Your task to perform on an android device: turn on javascript in the chrome app Image 0: 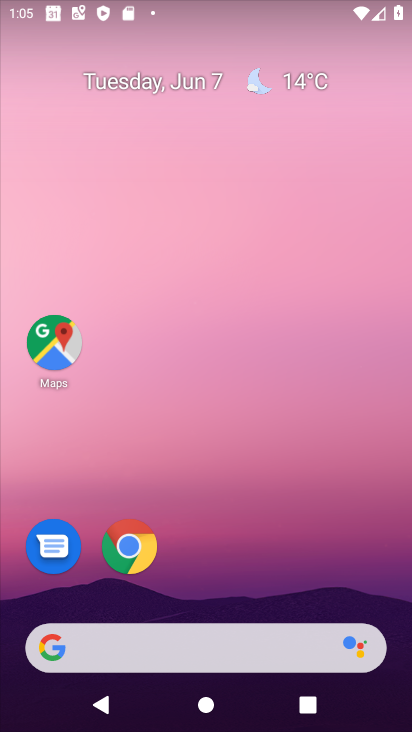
Step 0: drag from (234, 622) to (157, 104)
Your task to perform on an android device: turn on javascript in the chrome app Image 1: 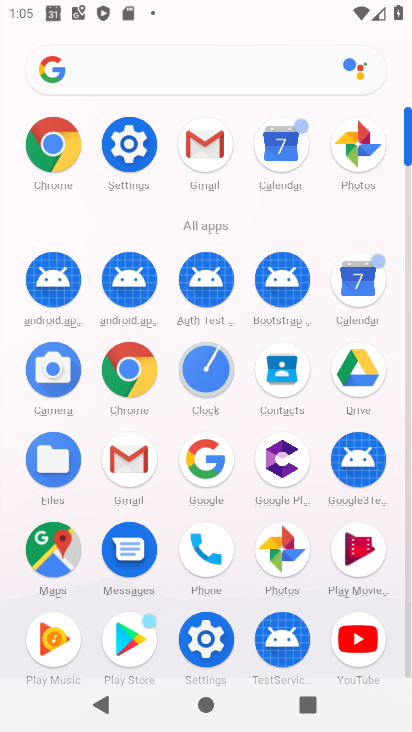
Step 1: click (137, 367)
Your task to perform on an android device: turn on javascript in the chrome app Image 2: 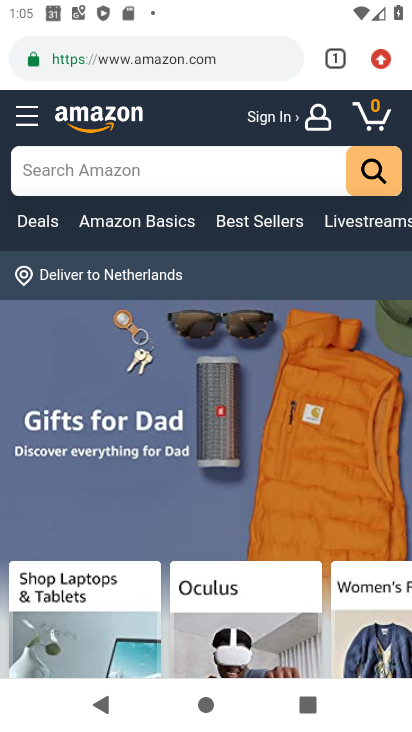
Step 2: click (378, 63)
Your task to perform on an android device: turn on javascript in the chrome app Image 3: 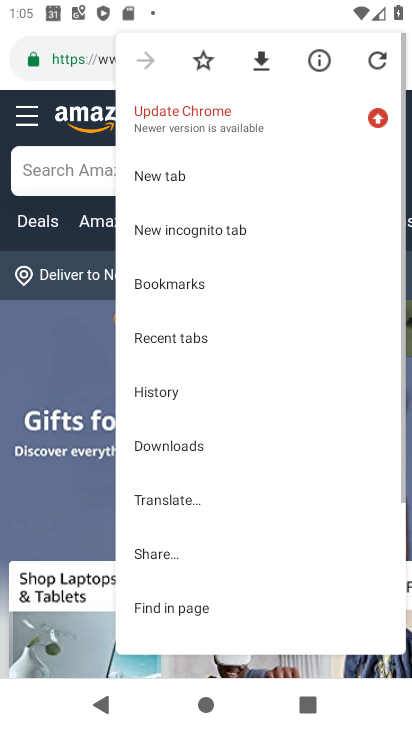
Step 3: drag from (153, 591) to (136, 139)
Your task to perform on an android device: turn on javascript in the chrome app Image 4: 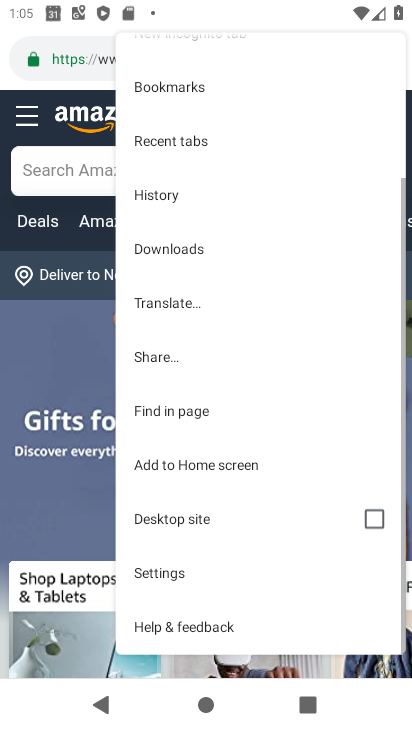
Step 4: click (156, 587)
Your task to perform on an android device: turn on javascript in the chrome app Image 5: 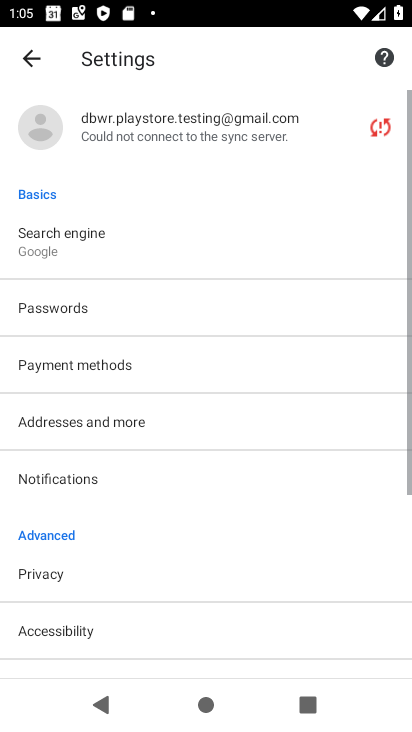
Step 5: drag from (187, 565) to (142, 115)
Your task to perform on an android device: turn on javascript in the chrome app Image 6: 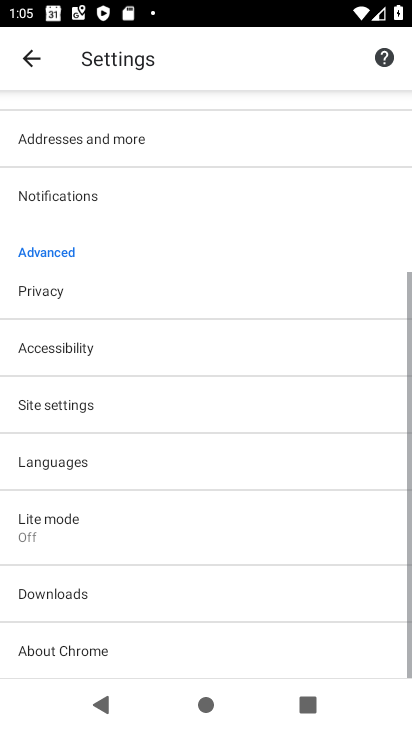
Step 6: click (43, 411)
Your task to perform on an android device: turn on javascript in the chrome app Image 7: 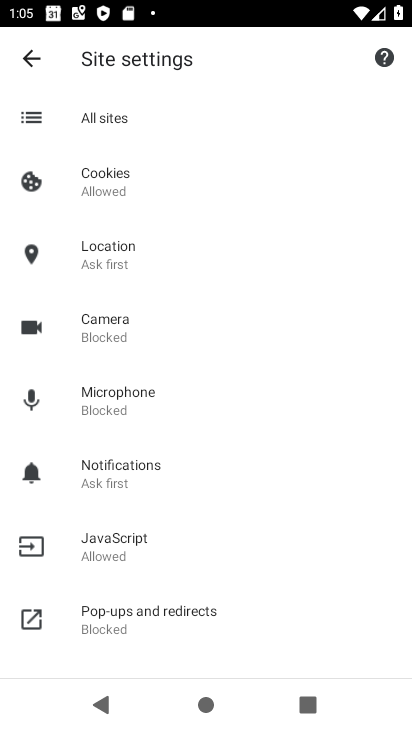
Step 7: click (141, 551)
Your task to perform on an android device: turn on javascript in the chrome app Image 8: 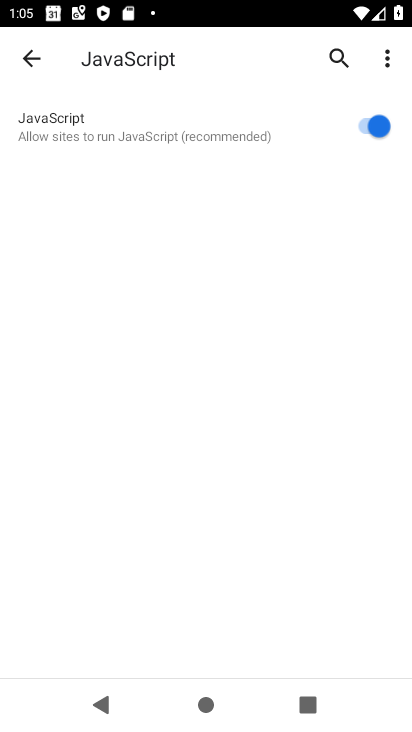
Step 8: task complete